Your task to perform on an android device: set the timer Image 0: 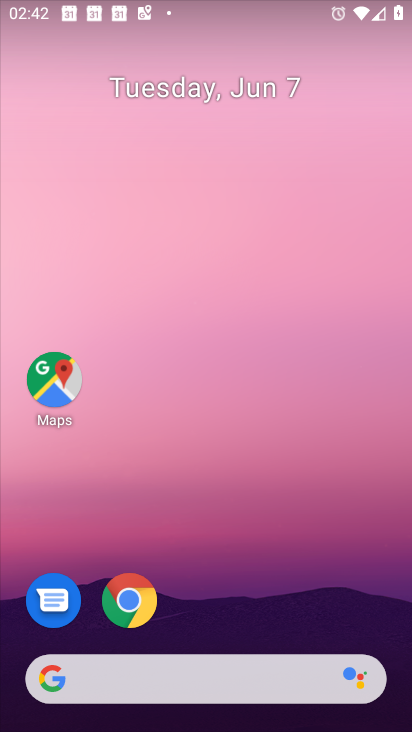
Step 0: drag from (217, 660) to (226, 128)
Your task to perform on an android device: set the timer Image 1: 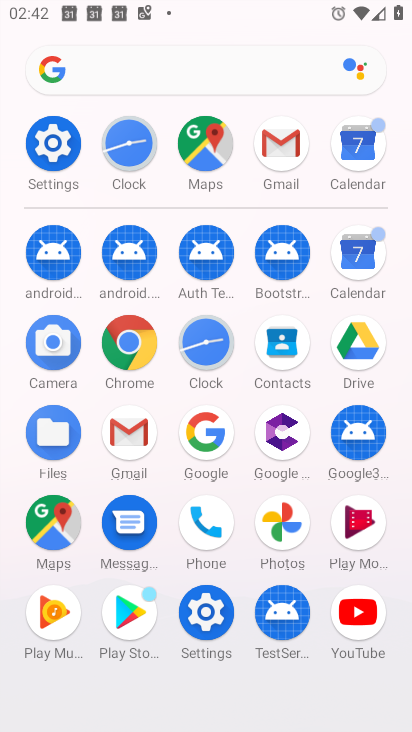
Step 1: click (199, 348)
Your task to perform on an android device: set the timer Image 2: 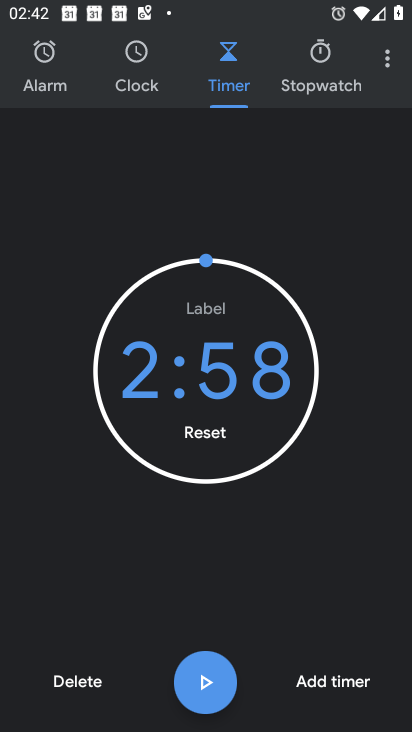
Step 2: click (314, 674)
Your task to perform on an android device: set the timer Image 3: 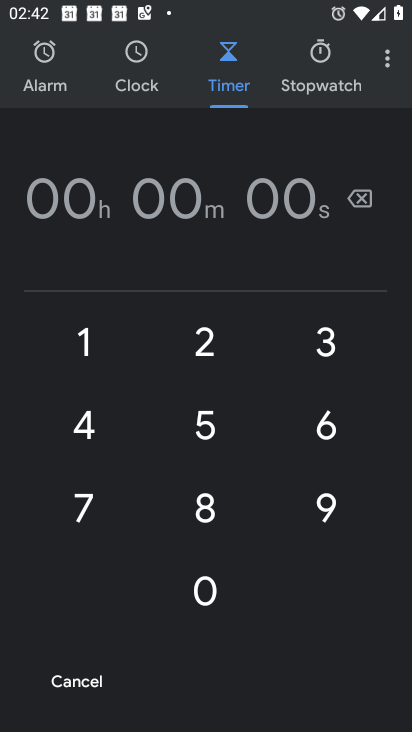
Step 3: click (198, 428)
Your task to perform on an android device: set the timer Image 4: 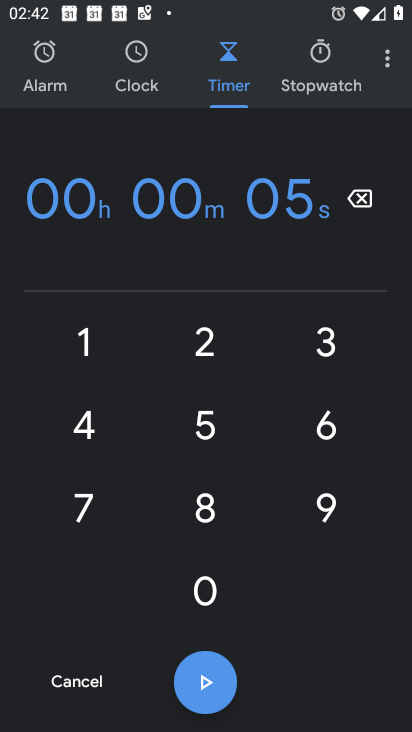
Step 4: click (77, 431)
Your task to perform on an android device: set the timer Image 5: 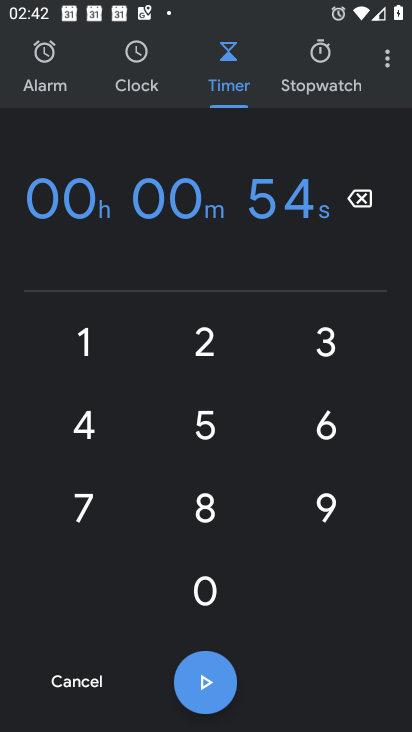
Step 5: click (77, 506)
Your task to perform on an android device: set the timer Image 6: 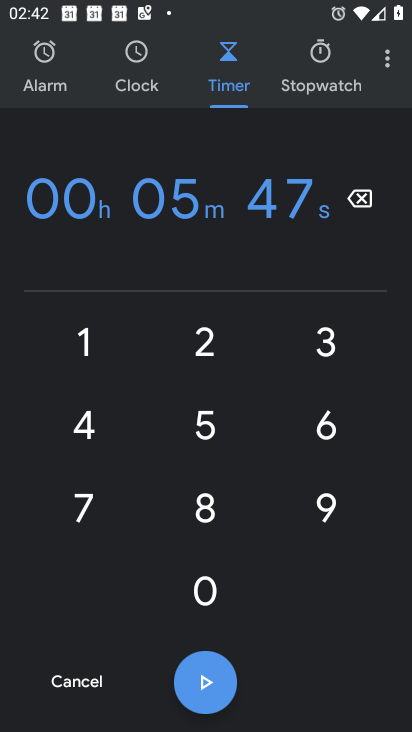
Step 6: click (198, 684)
Your task to perform on an android device: set the timer Image 7: 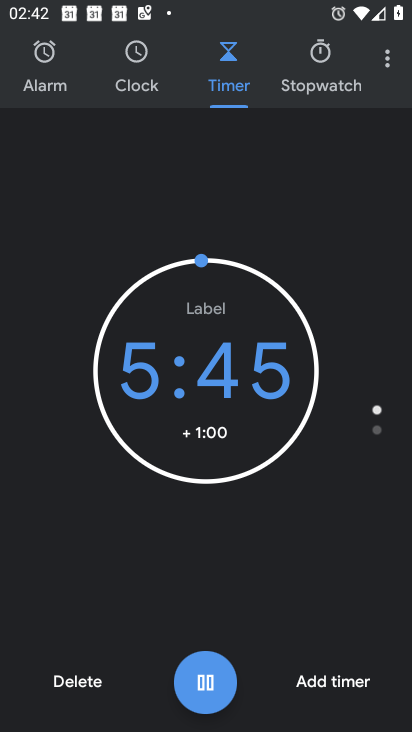
Step 7: task complete